Your task to perform on an android device: delete the emails in spam in the gmail app Image 0: 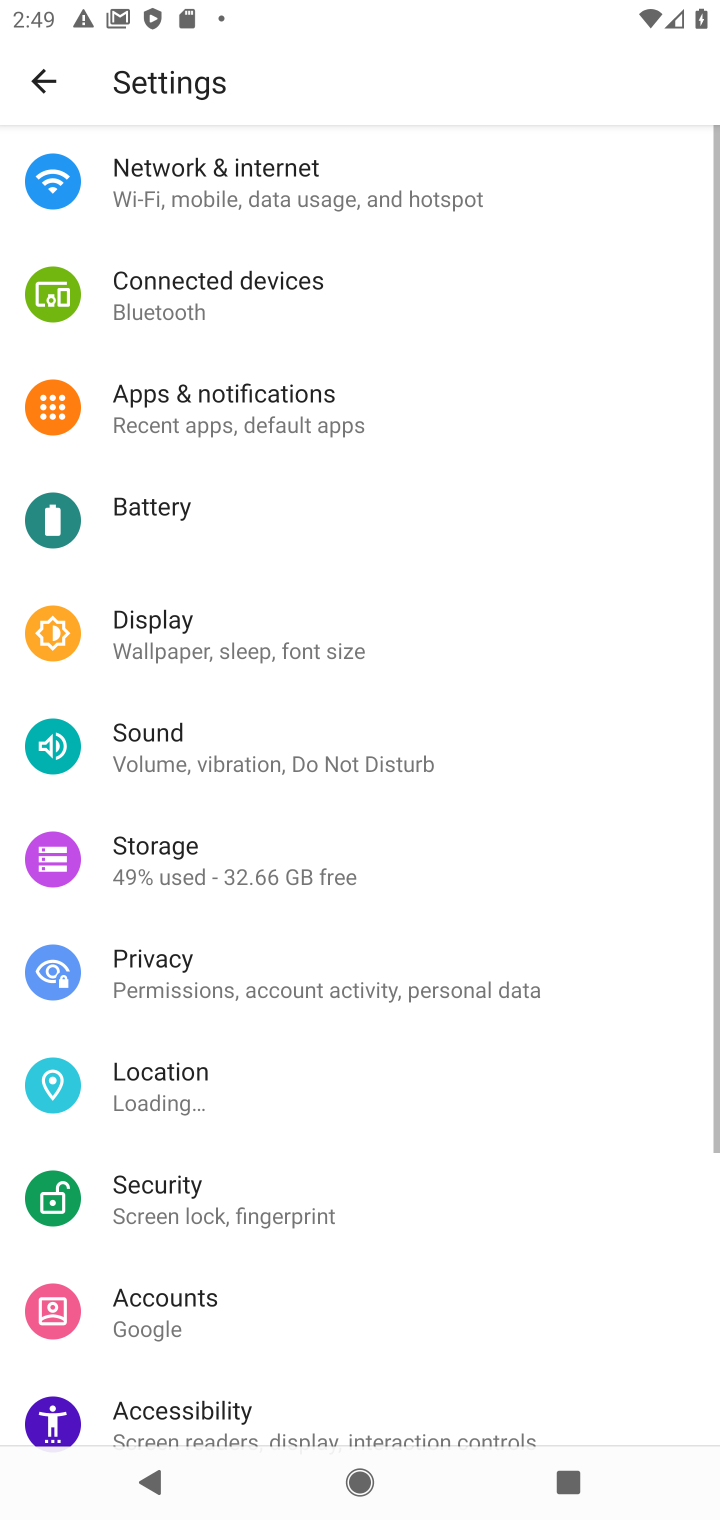
Step 0: press home button
Your task to perform on an android device: delete the emails in spam in the gmail app Image 1: 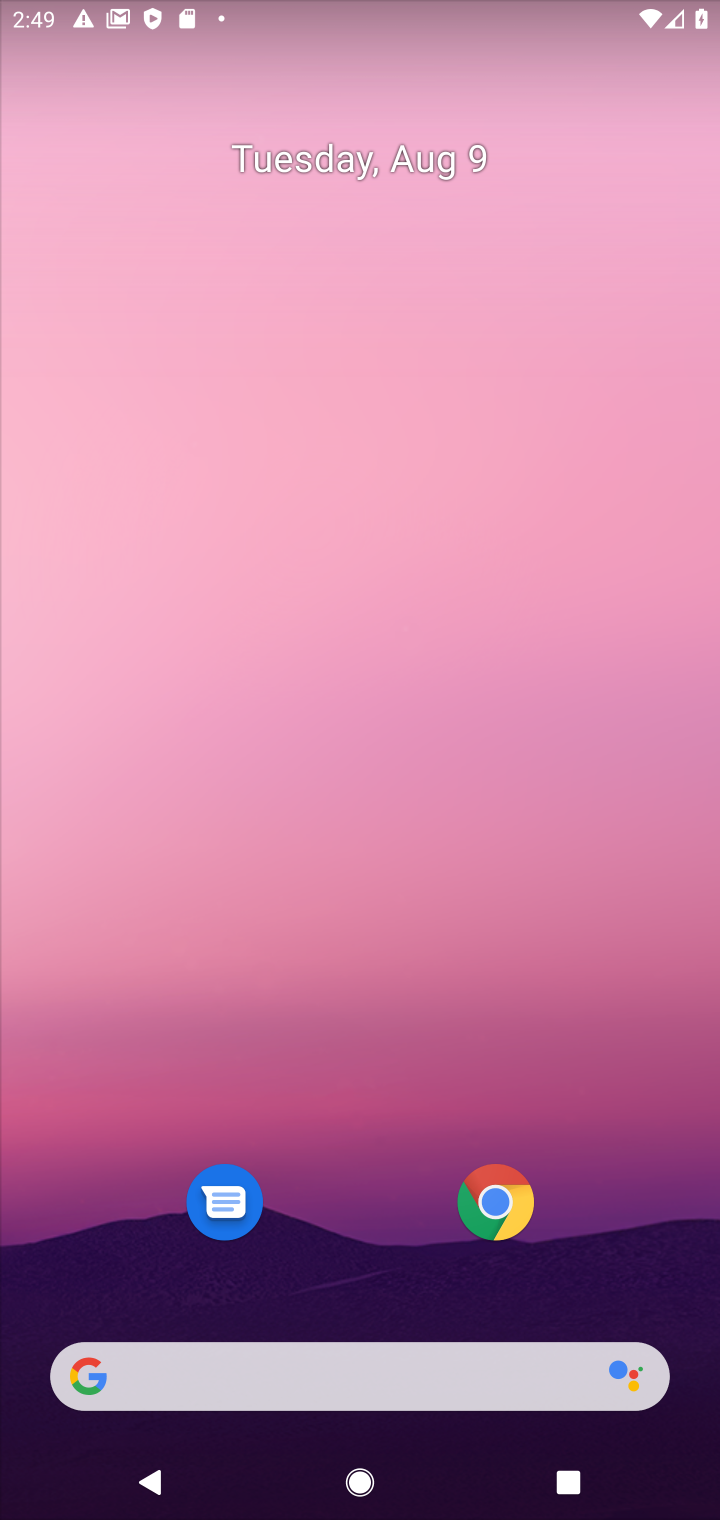
Step 1: drag from (375, 1242) to (496, 588)
Your task to perform on an android device: delete the emails in spam in the gmail app Image 2: 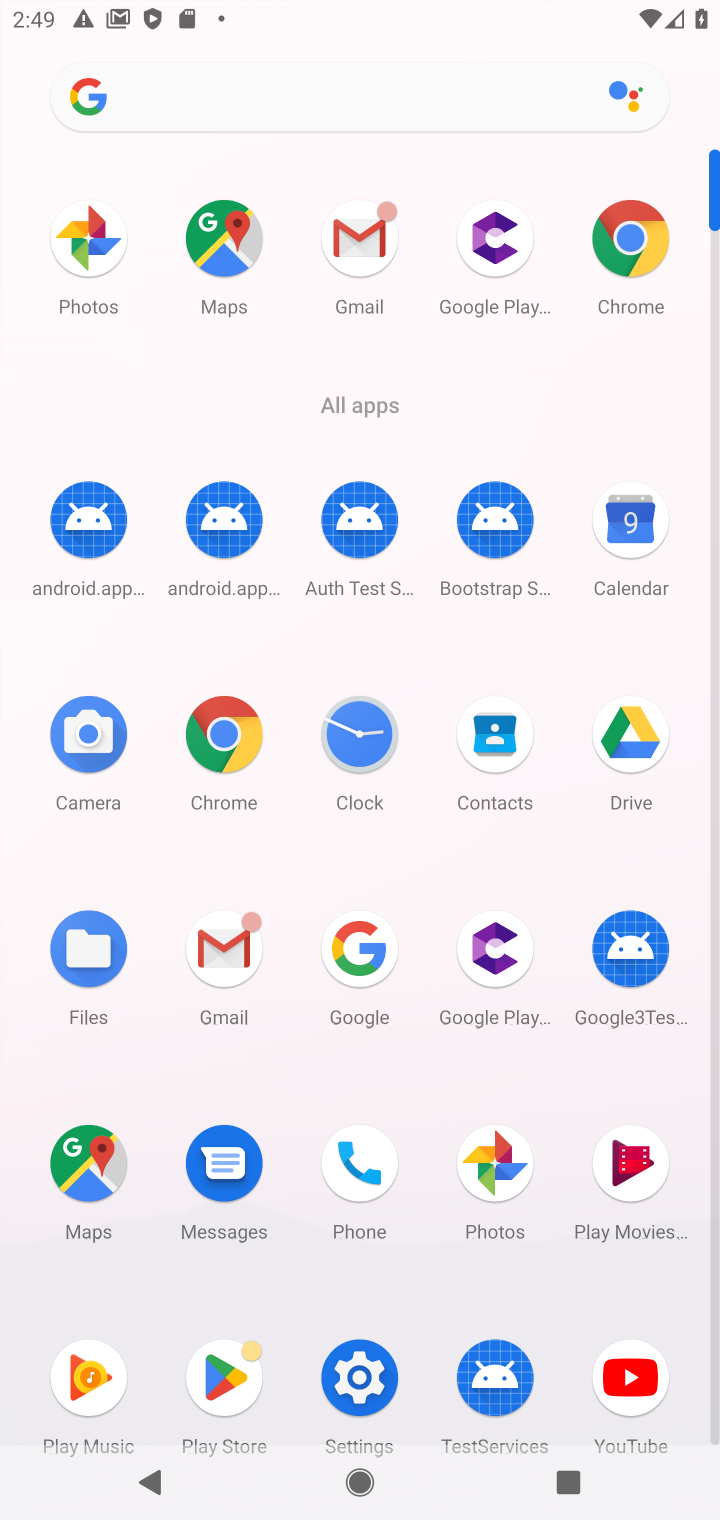
Step 2: click (249, 982)
Your task to perform on an android device: delete the emails in spam in the gmail app Image 3: 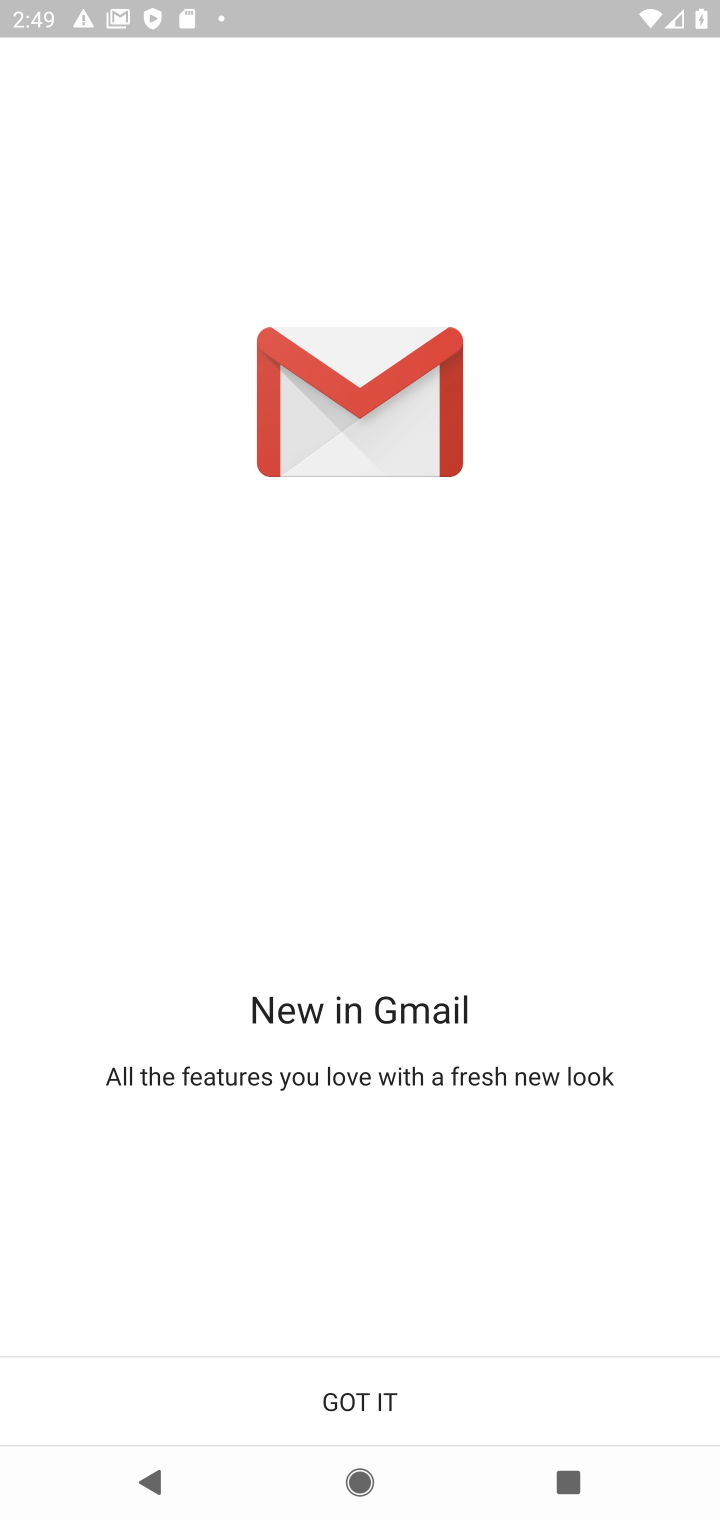
Step 3: click (323, 1416)
Your task to perform on an android device: delete the emails in spam in the gmail app Image 4: 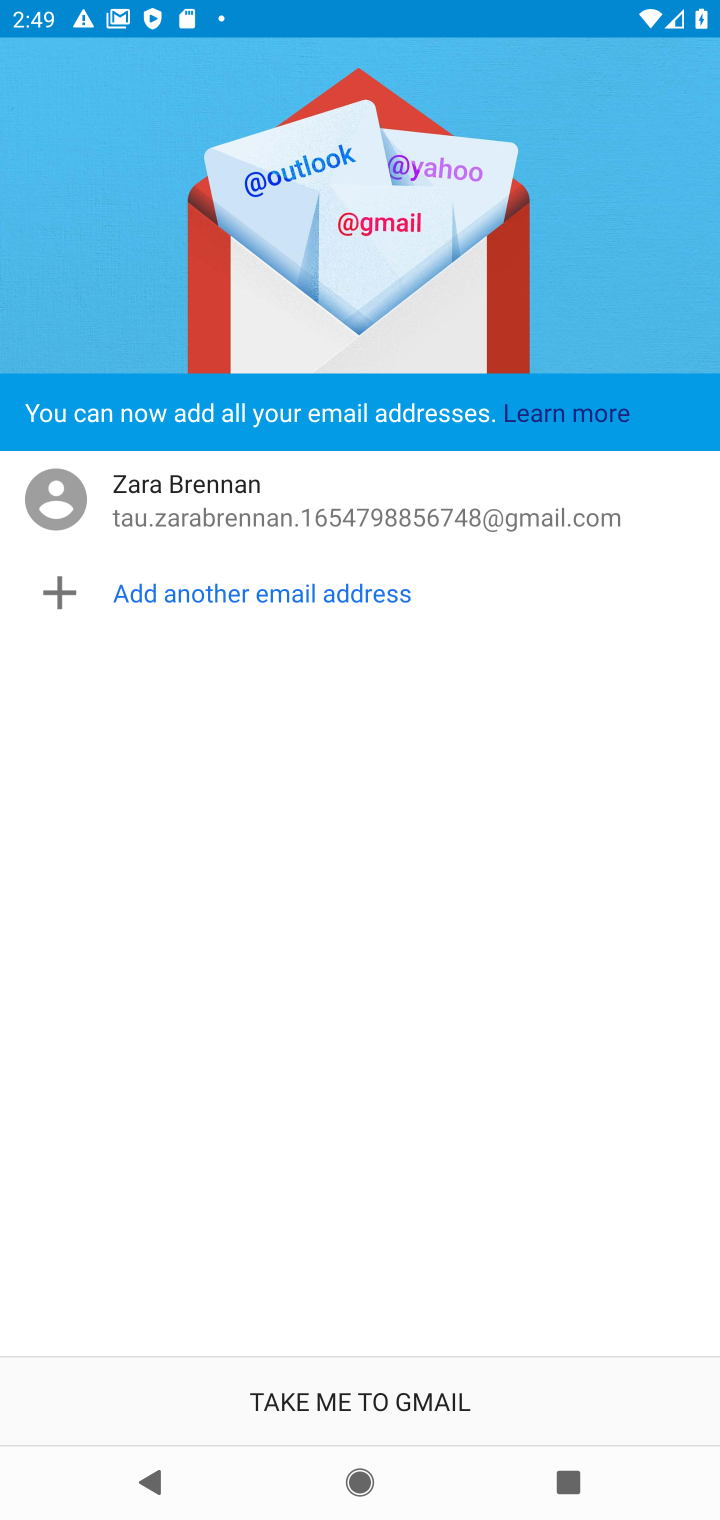
Step 4: click (323, 1416)
Your task to perform on an android device: delete the emails in spam in the gmail app Image 5: 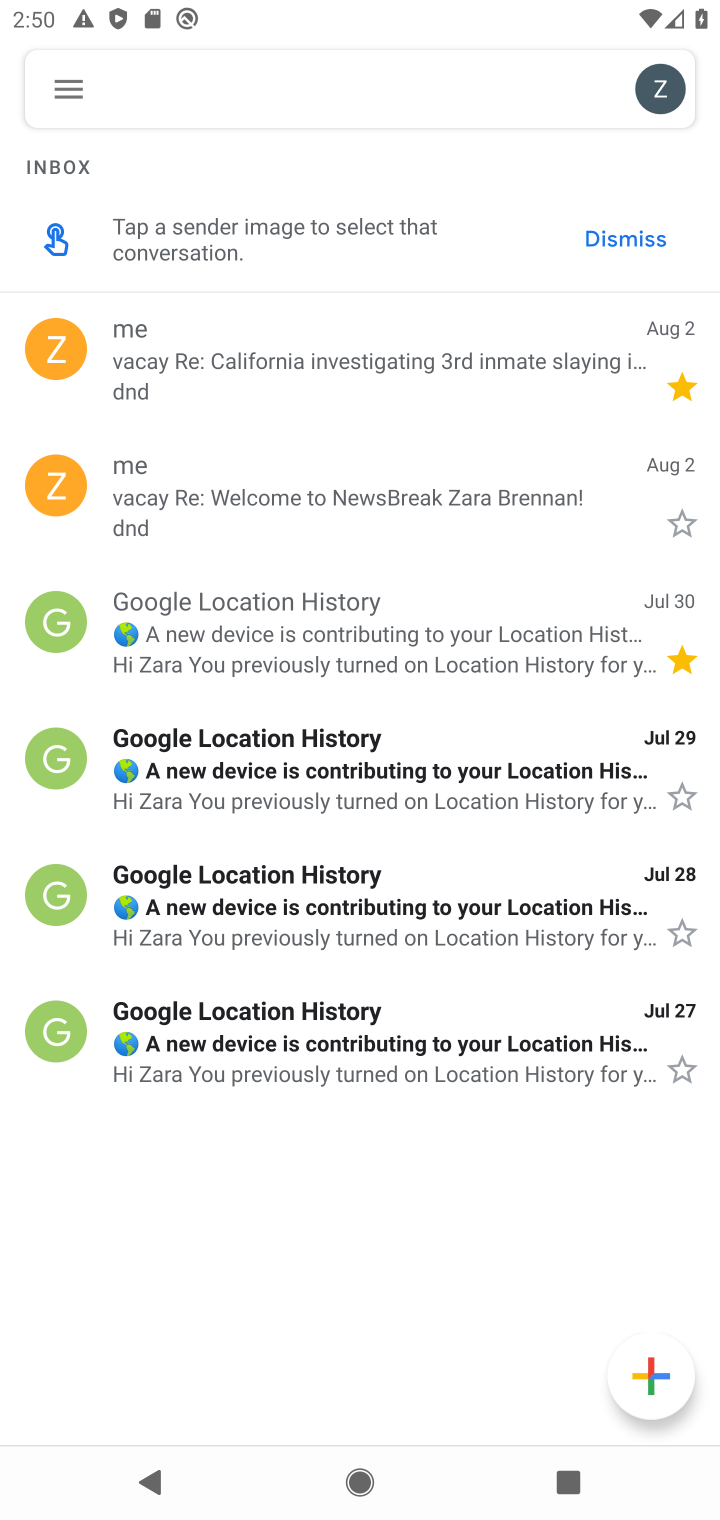
Step 5: click (300, 766)
Your task to perform on an android device: delete the emails in spam in the gmail app Image 6: 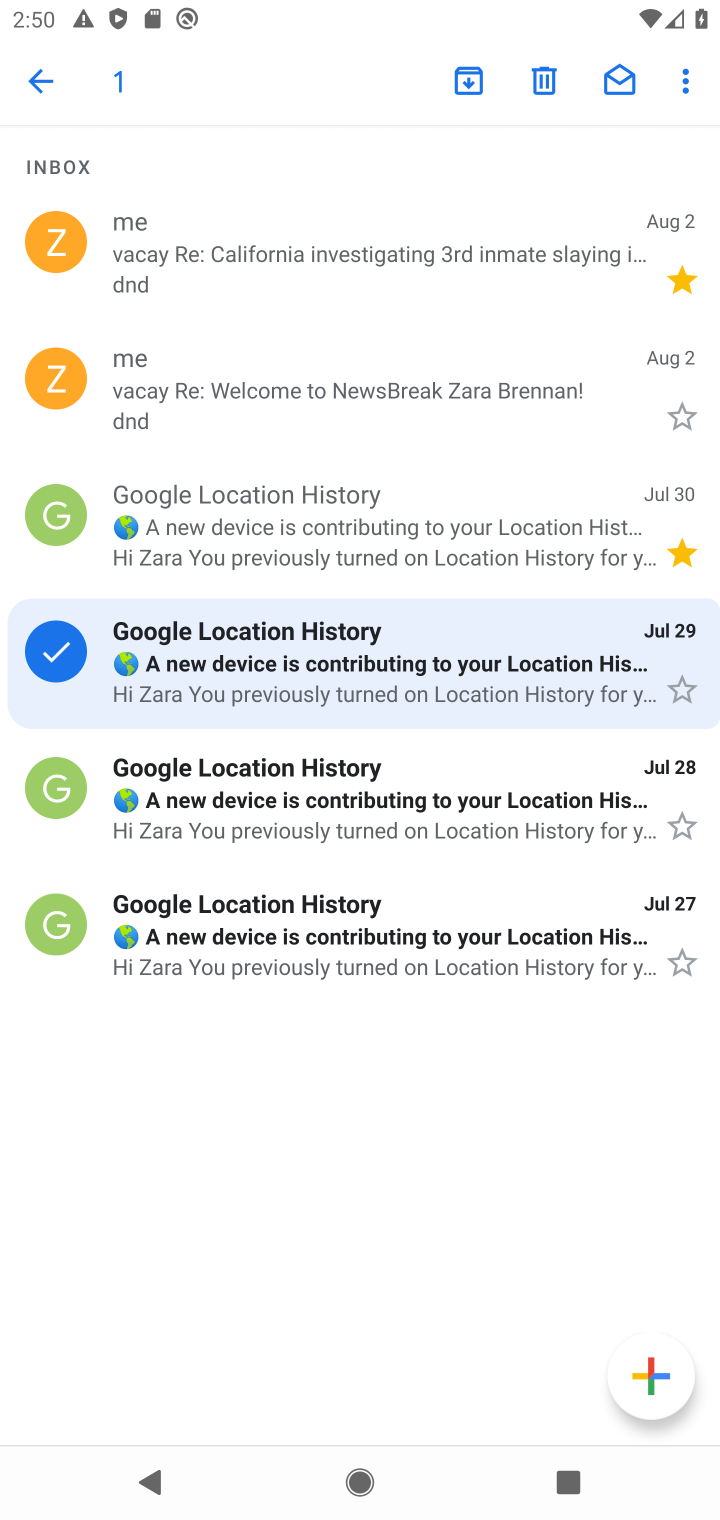
Step 6: click (689, 68)
Your task to perform on an android device: delete the emails in spam in the gmail app Image 7: 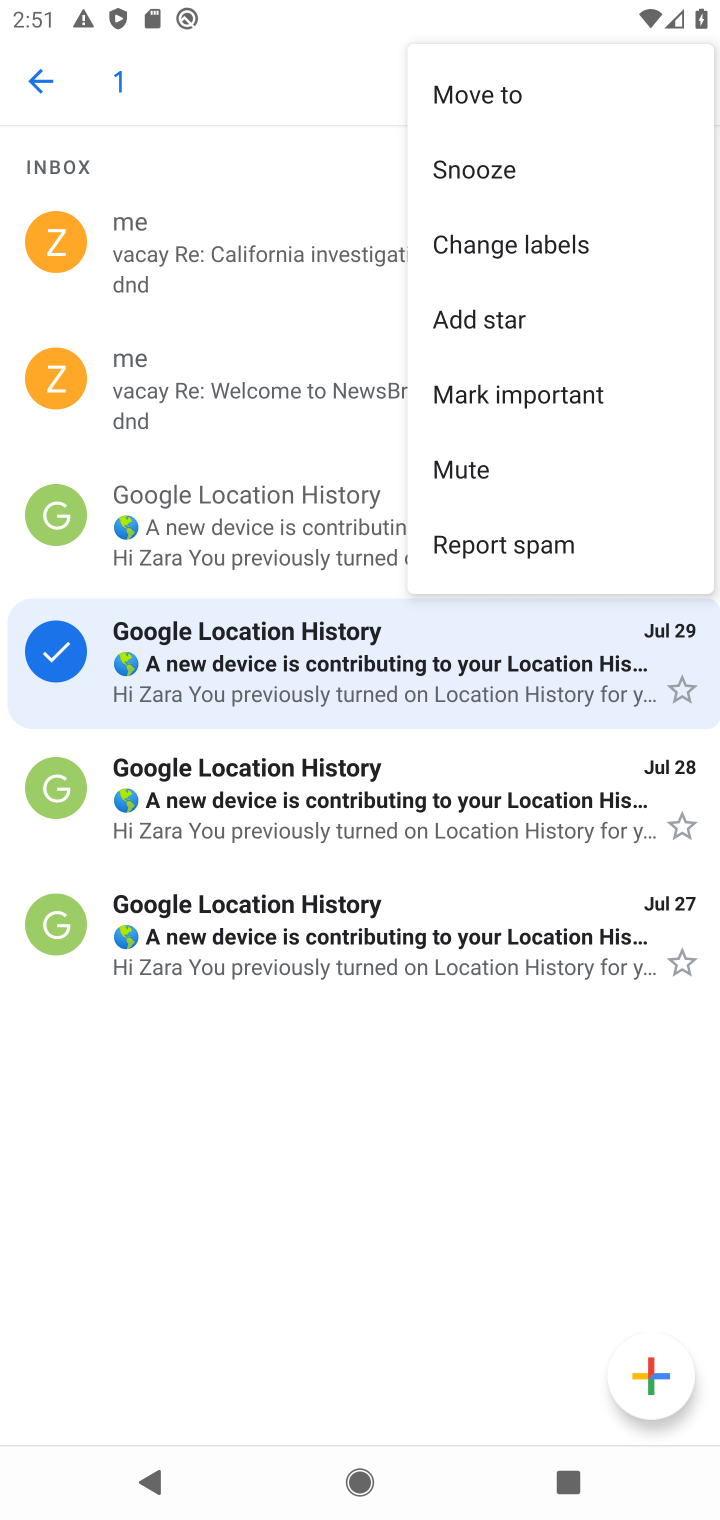
Step 7: click (81, 701)
Your task to perform on an android device: delete the emails in spam in the gmail app Image 8: 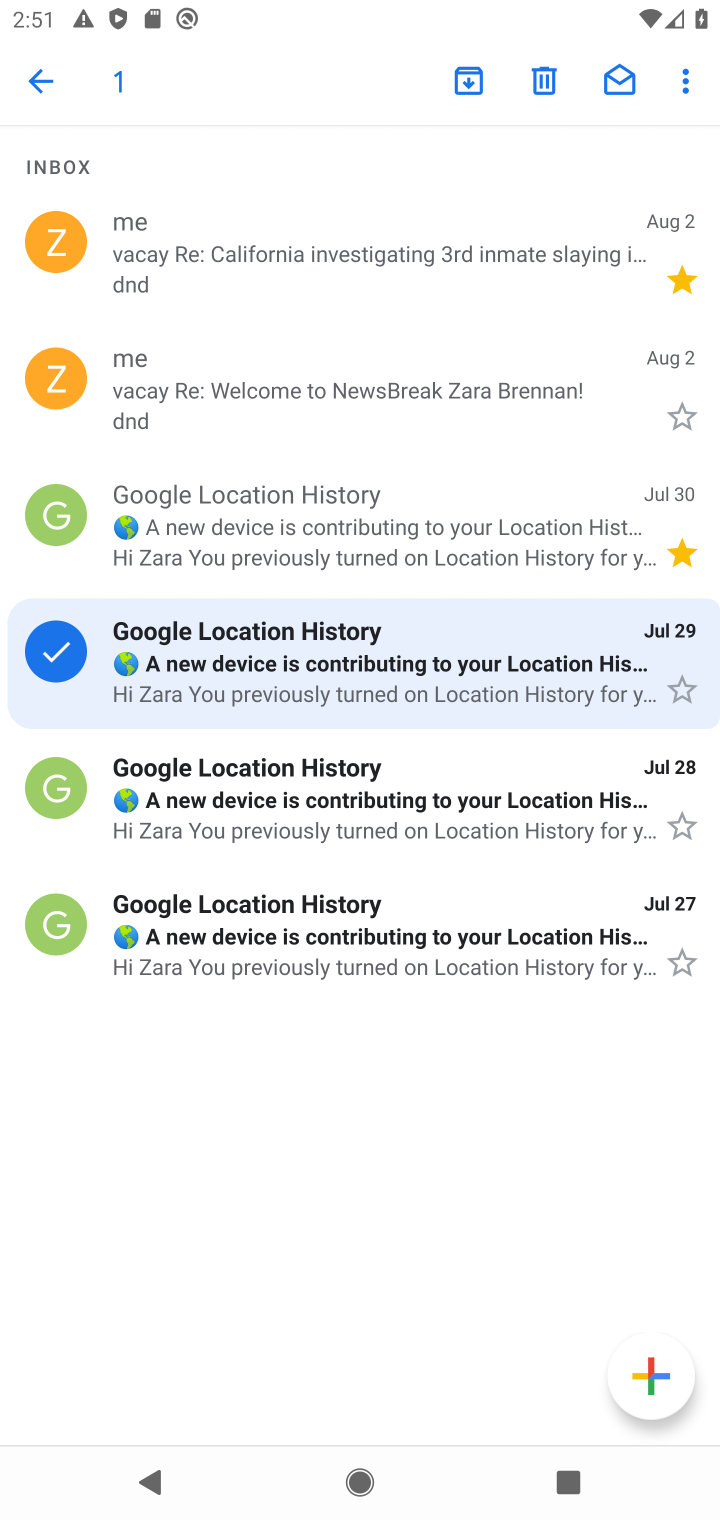
Step 8: click (561, 65)
Your task to perform on an android device: delete the emails in spam in the gmail app Image 9: 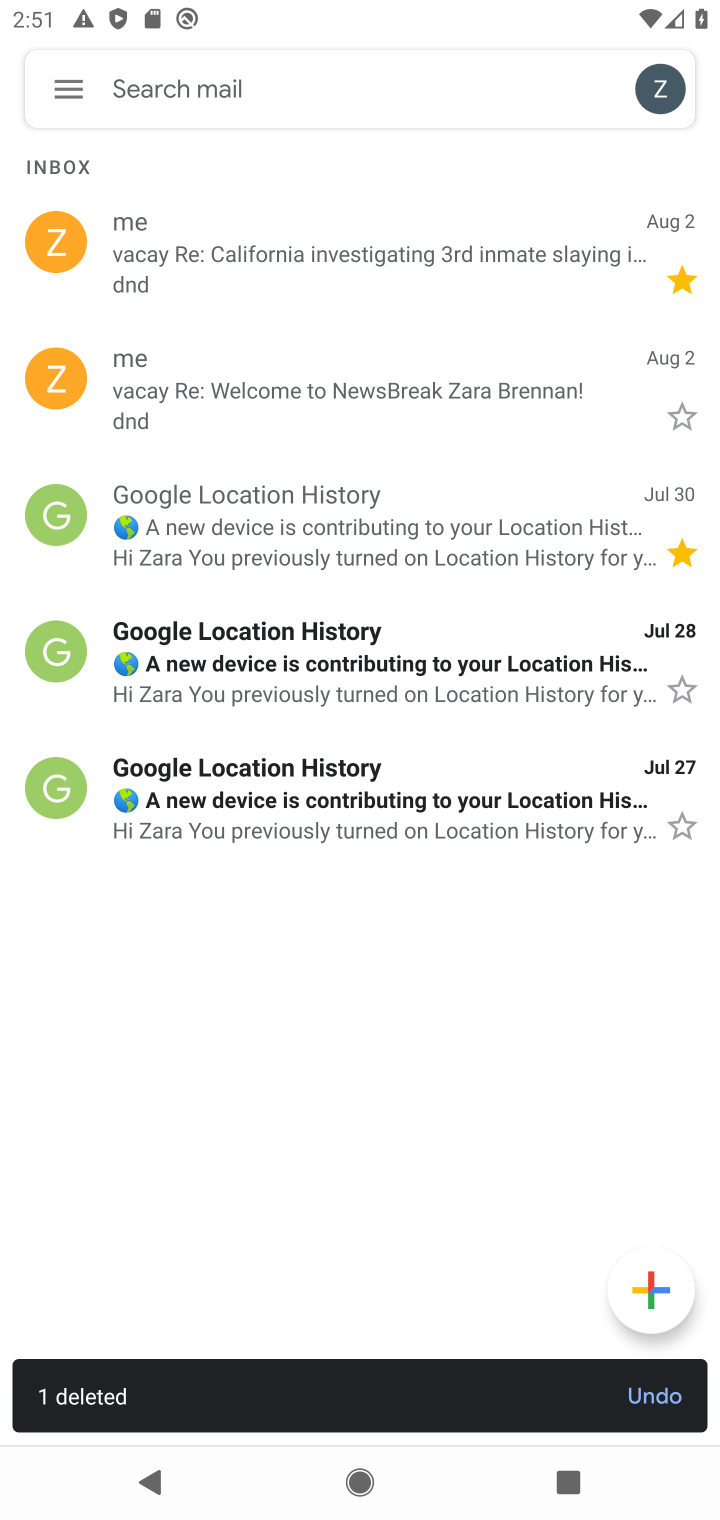
Step 9: click (51, 266)
Your task to perform on an android device: delete the emails in spam in the gmail app Image 10: 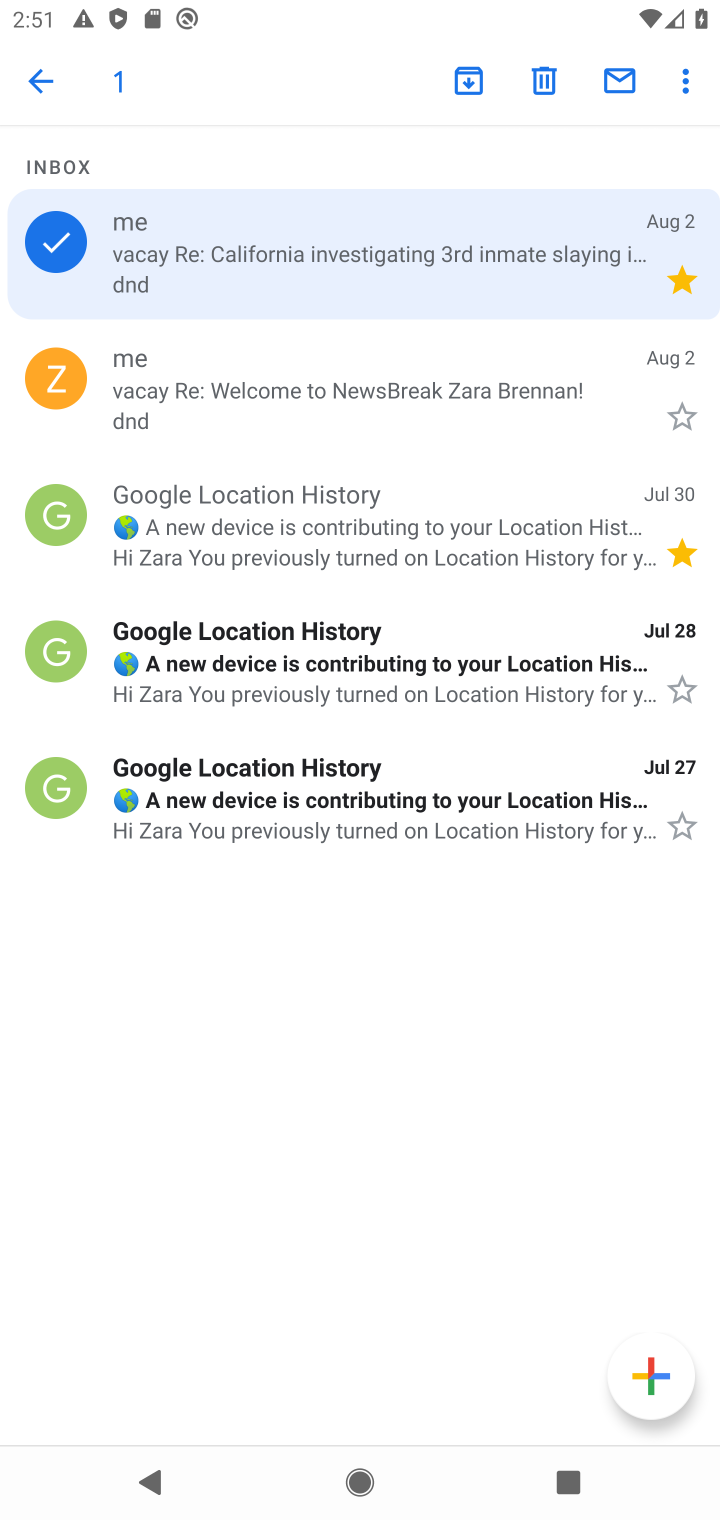
Step 10: click (75, 359)
Your task to perform on an android device: delete the emails in spam in the gmail app Image 11: 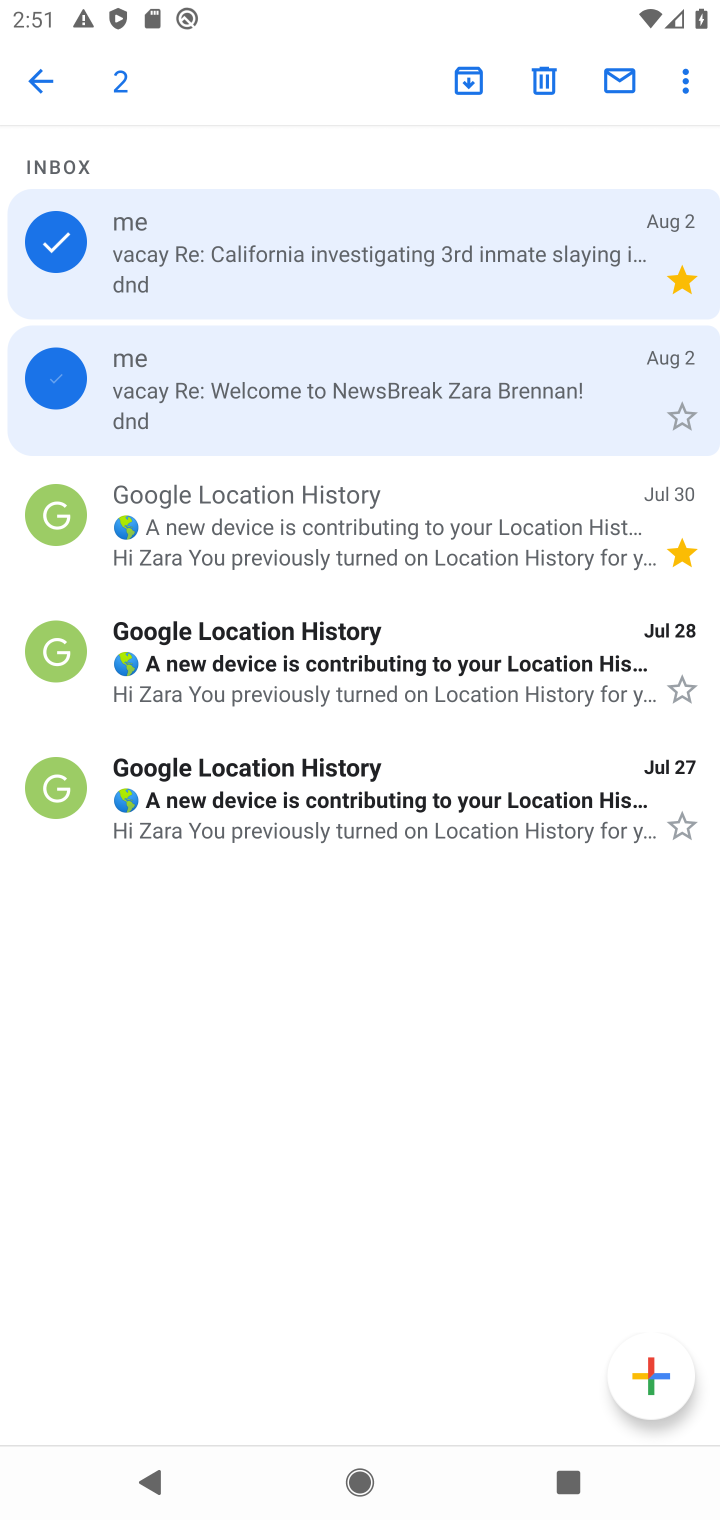
Step 11: click (51, 502)
Your task to perform on an android device: delete the emails in spam in the gmail app Image 12: 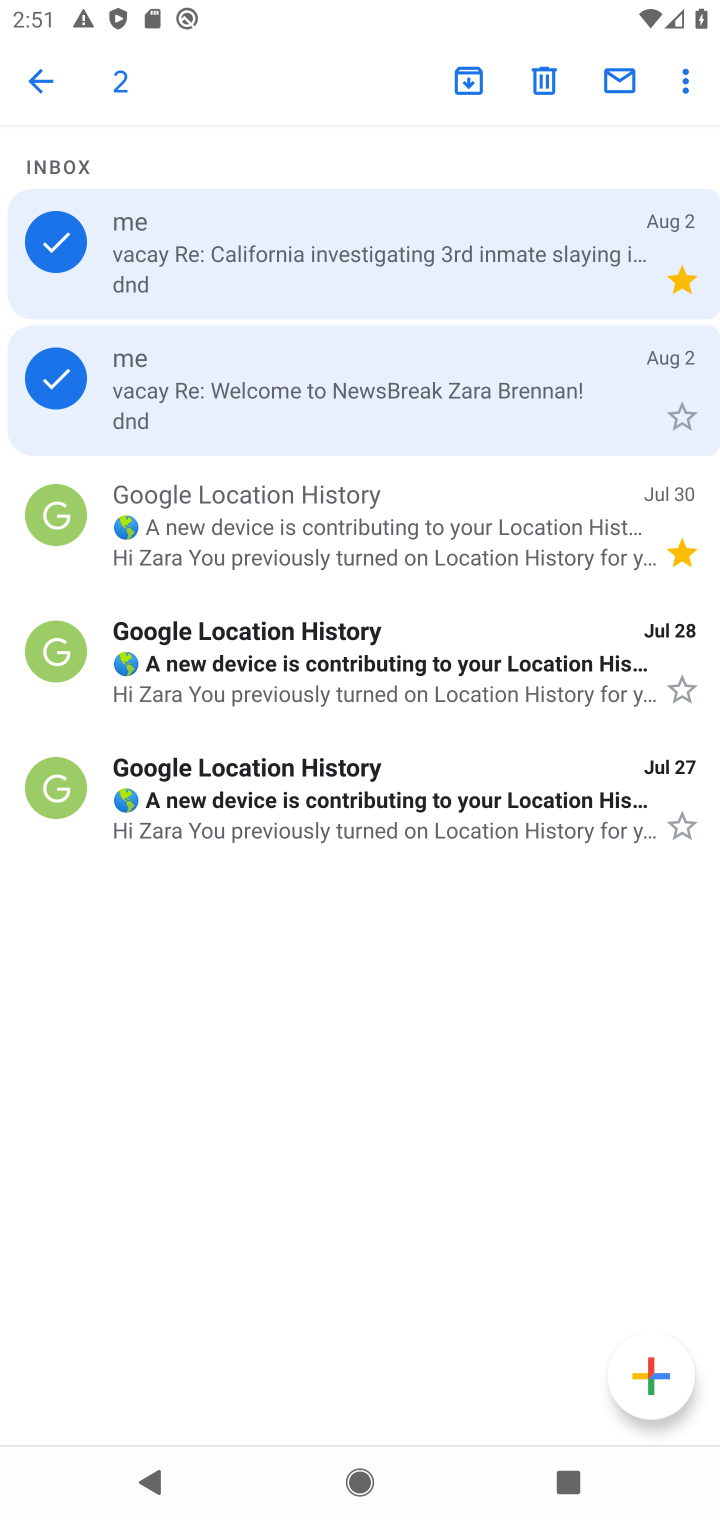
Step 12: click (51, 658)
Your task to perform on an android device: delete the emails in spam in the gmail app Image 13: 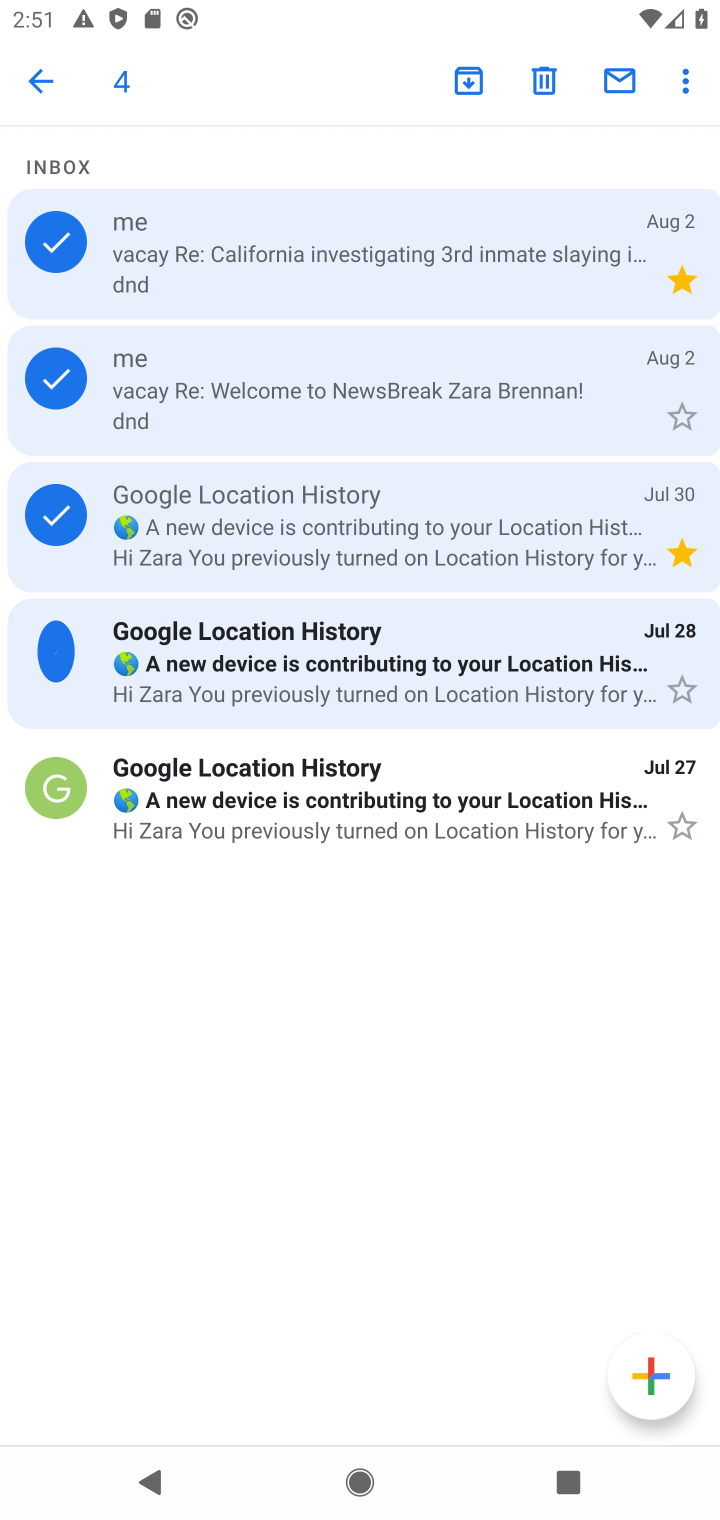
Step 13: click (48, 796)
Your task to perform on an android device: delete the emails in spam in the gmail app Image 14: 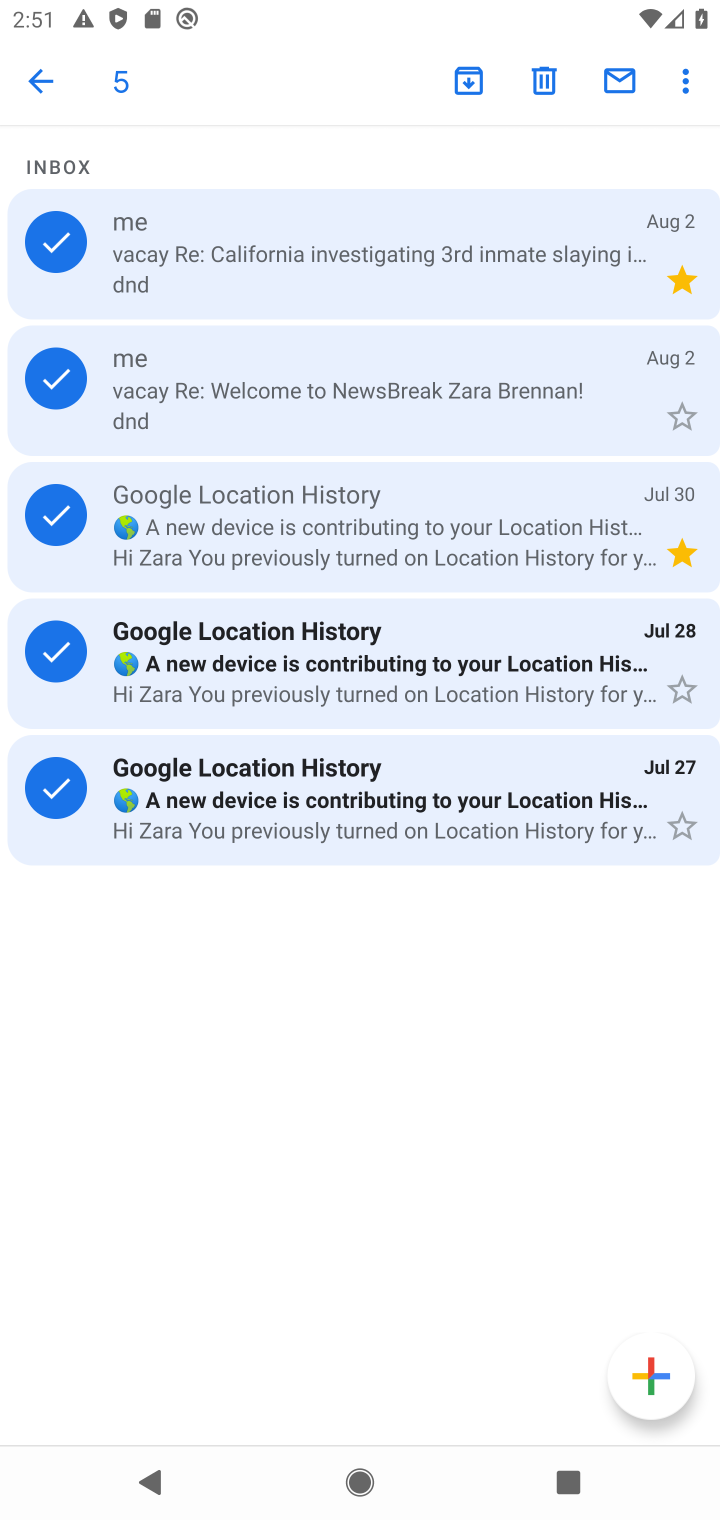
Step 14: click (539, 95)
Your task to perform on an android device: delete the emails in spam in the gmail app Image 15: 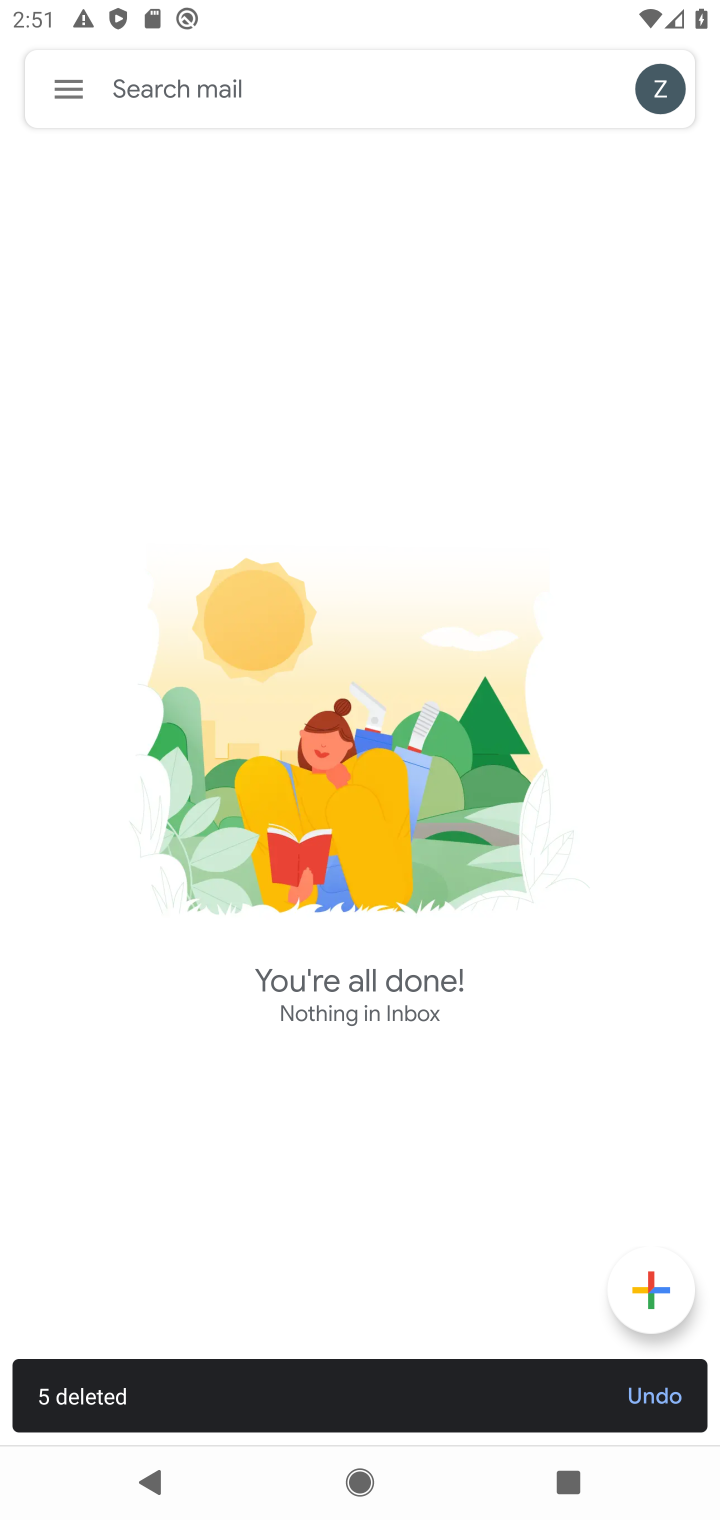
Step 15: task complete